Your task to perform on an android device: Open Youtube and go to "Your channel" Image 0: 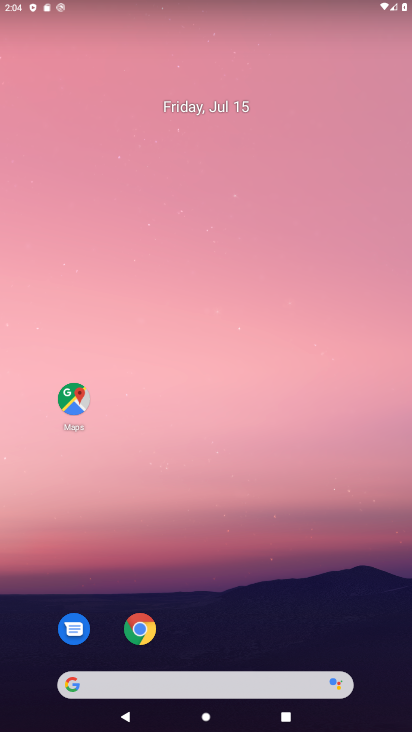
Step 0: drag from (230, 523) to (221, 150)
Your task to perform on an android device: Open Youtube and go to "Your channel" Image 1: 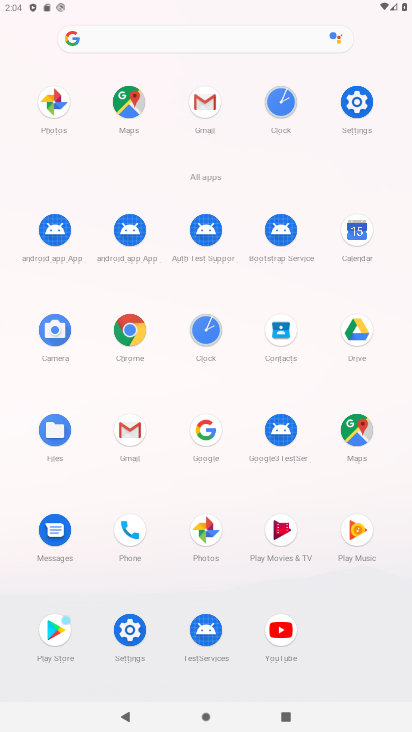
Step 1: click (281, 632)
Your task to perform on an android device: Open Youtube and go to "Your channel" Image 2: 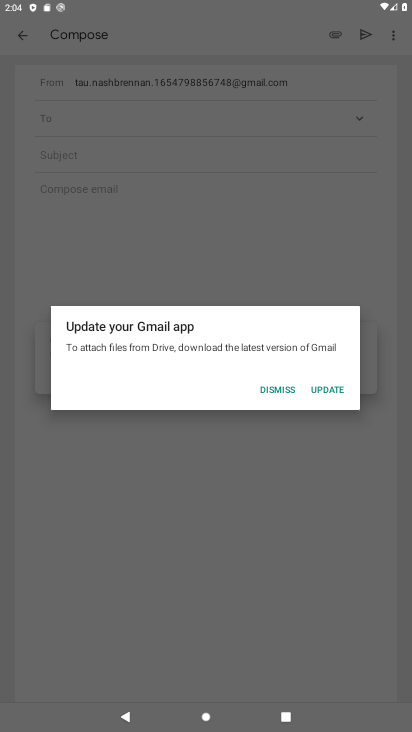
Step 2: press home button
Your task to perform on an android device: Open Youtube and go to "Your channel" Image 3: 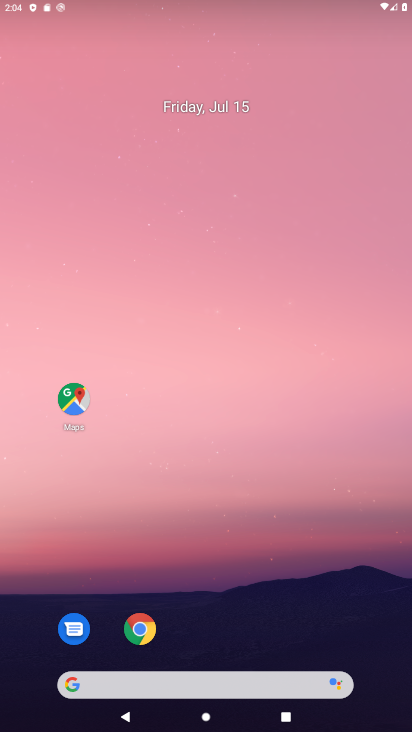
Step 3: drag from (307, 617) to (325, 170)
Your task to perform on an android device: Open Youtube and go to "Your channel" Image 4: 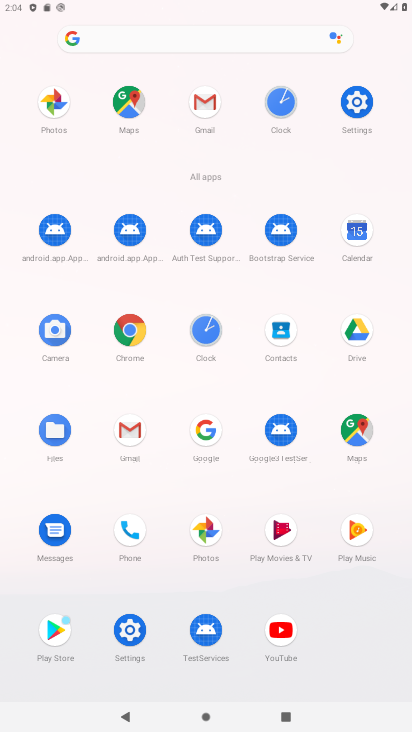
Step 4: click (277, 628)
Your task to perform on an android device: Open Youtube and go to "Your channel" Image 5: 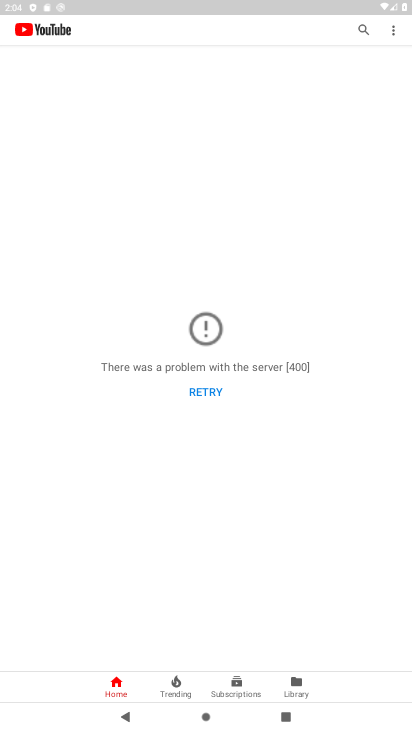
Step 5: task complete